Your task to perform on an android device: turn on bluetooth scan Image 0: 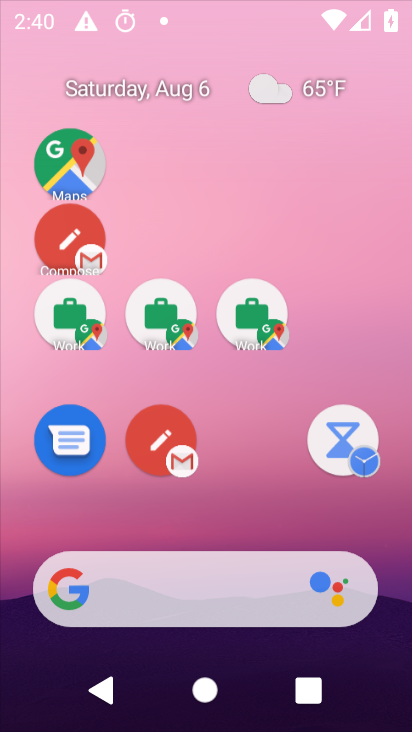
Step 0: click (169, 233)
Your task to perform on an android device: turn on bluetooth scan Image 1: 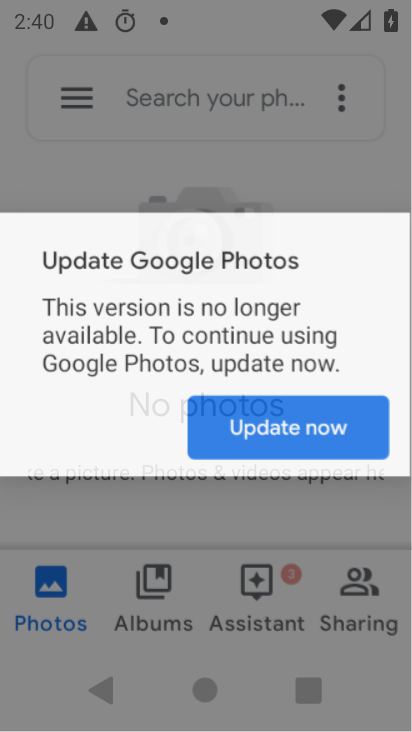
Step 1: click (148, 197)
Your task to perform on an android device: turn on bluetooth scan Image 2: 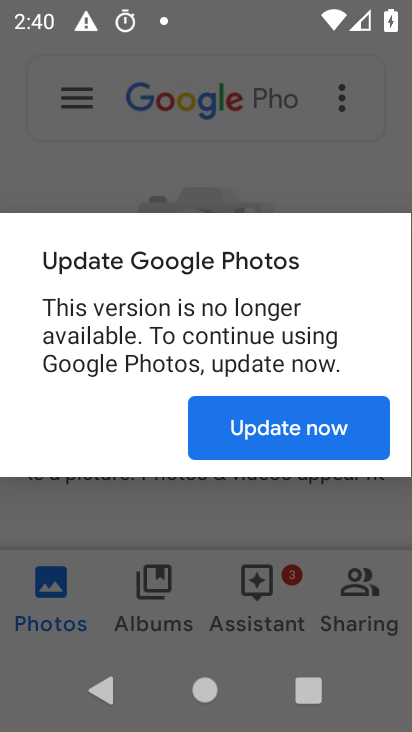
Step 2: drag from (234, 530) to (190, 195)
Your task to perform on an android device: turn on bluetooth scan Image 3: 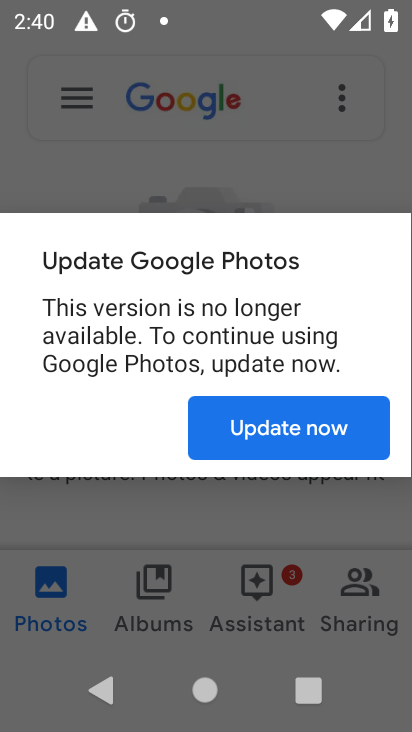
Step 3: press back button
Your task to perform on an android device: turn on bluetooth scan Image 4: 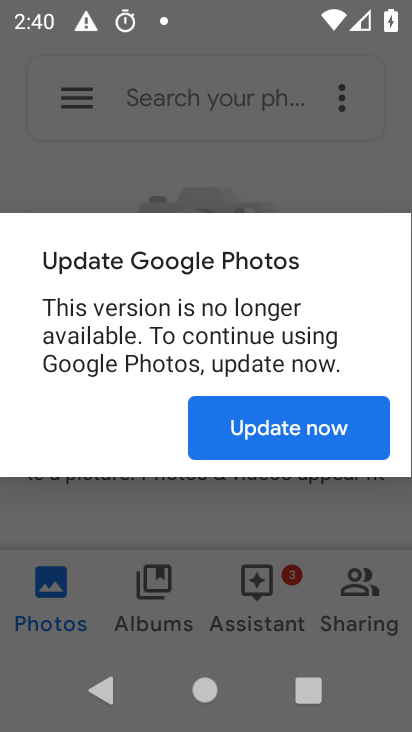
Step 4: click (350, 168)
Your task to perform on an android device: turn on bluetooth scan Image 5: 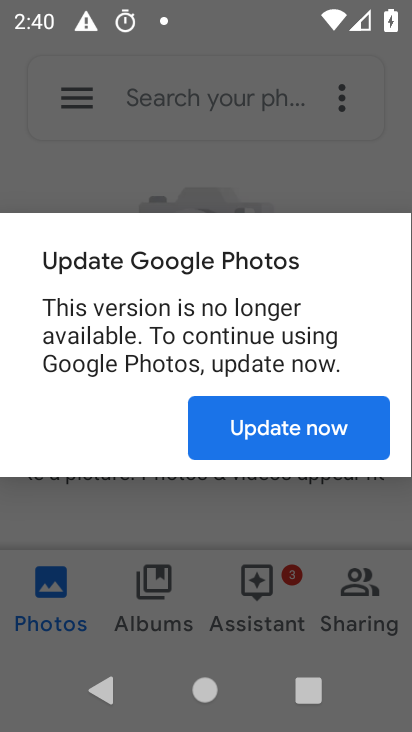
Step 5: press home button
Your task to perform on an android device: turn on bluetooth scan Image 6: 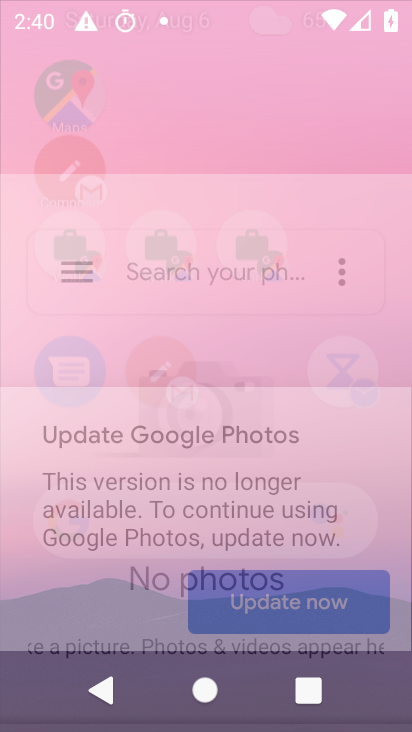
Step 6: press back button
Your task to perform on an android device: turn on bluetooth scan Image 7: 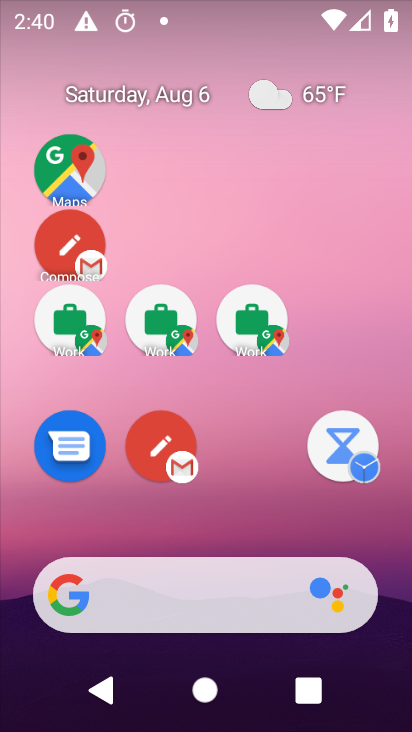
Step 7: drag from (256, 594) to (157, 116)
Your task to perform on an android device: turn on bluetooth scan Image 8: 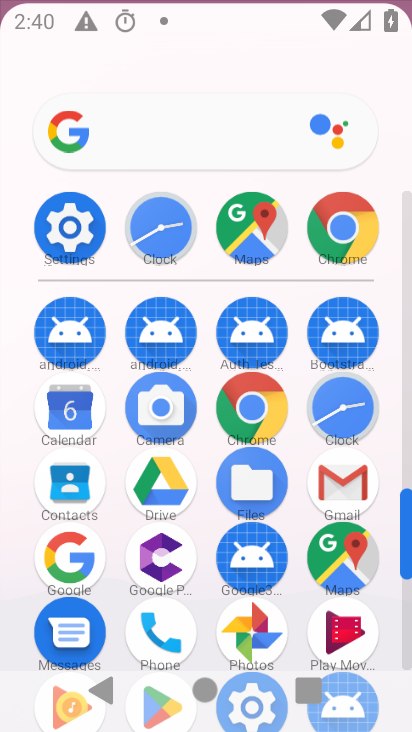
Step 8: drag from (255, 460) to (239, 193)
Your task to perform on an android device: turn on bluetooth scan Image 9: 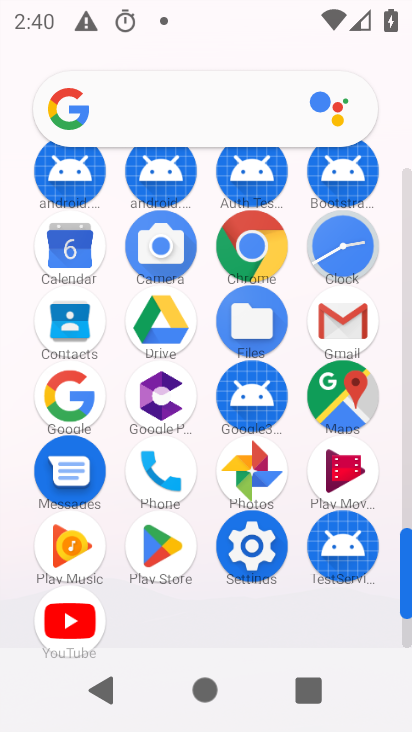
Step 9: click (247, 548)
Your task to perform on an android device: turn on bluetooth scan Image 10: 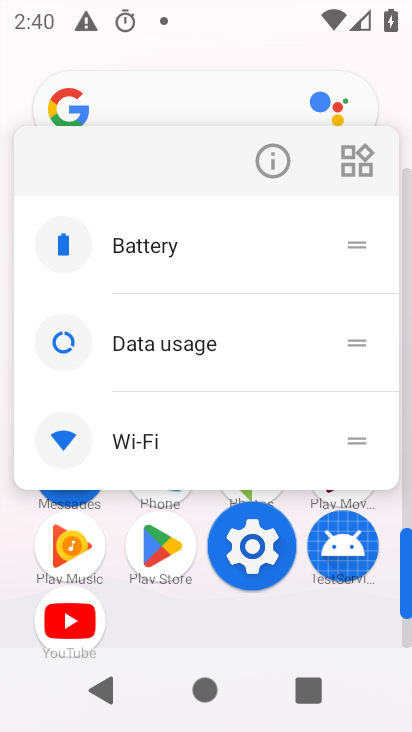
Step 10: click (247, 548)
Your task to perform on an android device: turn on bluetooth scan Image 11: 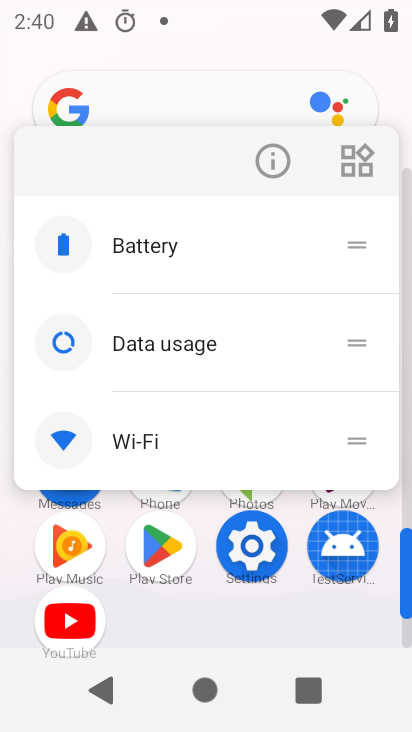
Step 11: click (259, 559)
Your task to perform on an android device: turn on bluetooth scan Image 12: 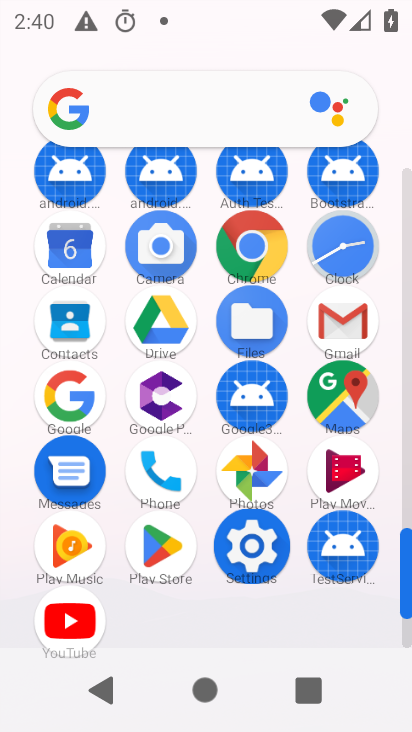
Step 12: click (264, 555)
Your task to perform on an android device: turn on bluetooth scan Image 13: 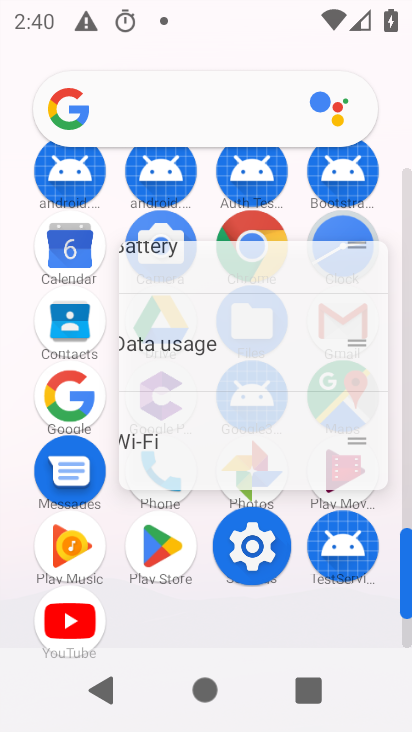
Step 13: click (266, 555)
Your task to perform on an android device: turn on bluetooth scan Image 14: 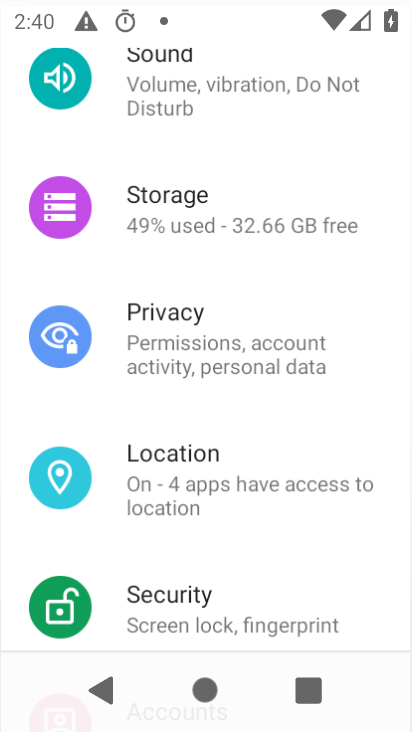
Step 14: click (269, 554)
Your task to perform on an android device: turn on bluetooth scan Image 15: 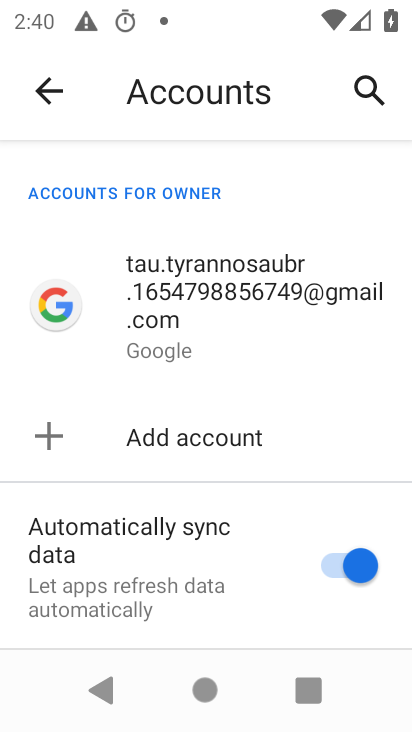
Step 15: click (38, 81)
Your task to perform on an android device: turn on bluetooth scan Image 16: 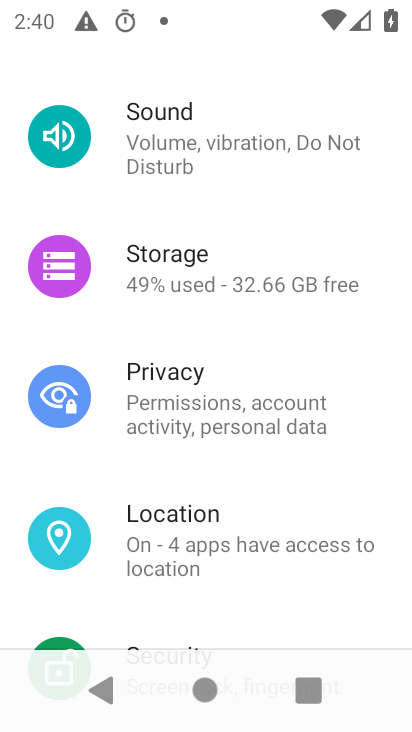
Step 16: drag from (171, 202) to (187, 437)
Your task to perform on an android device: turn on bluetooth scan Image 17: 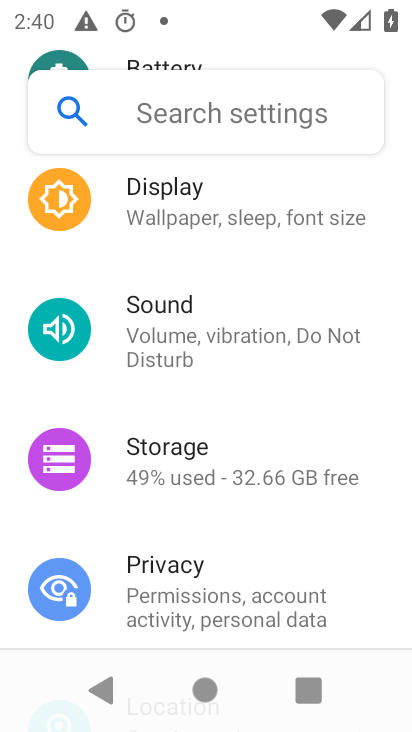
Step 17: drag from (184, 286) to (228, 461)
Your task to perform on an android device: turn on bluetooth scan Image 18: 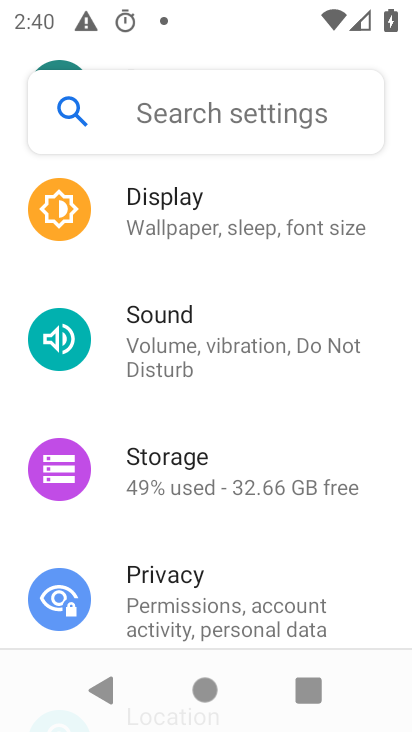
Step 18: drag from (187, 286) to (221, 595)
Your task to perform on an android device: turn on bluetooth scan Image 19: 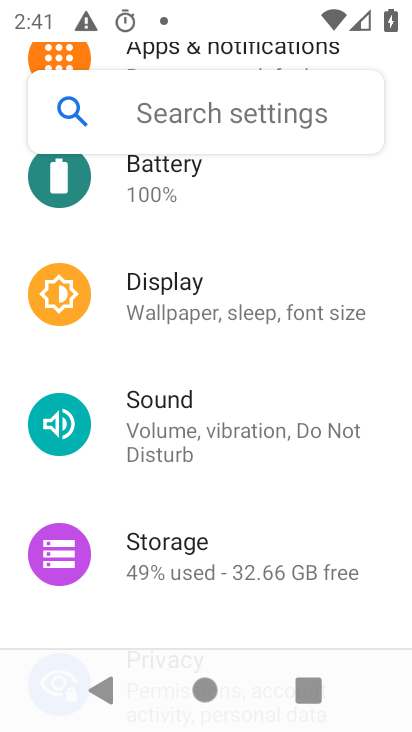
Step 19: drag from (211, 404) to (172, 538)
Your task to perform on an android device: turn on bluetooth scan Image 20: 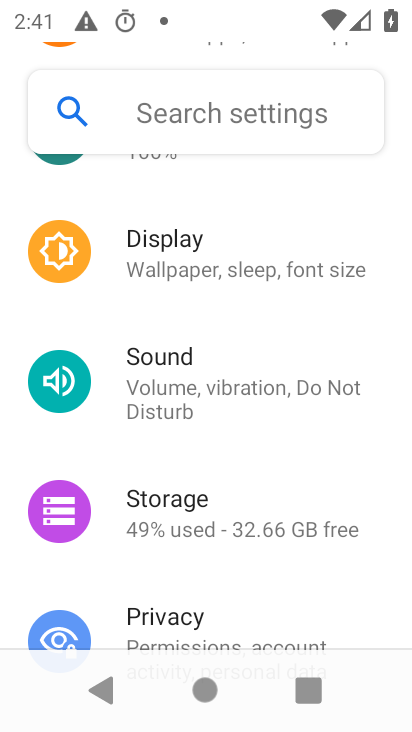
Step 20: drag from (185, 290) to (211, 479)
Your task to perform on an android device: turn on bluetooth scan Image 21: 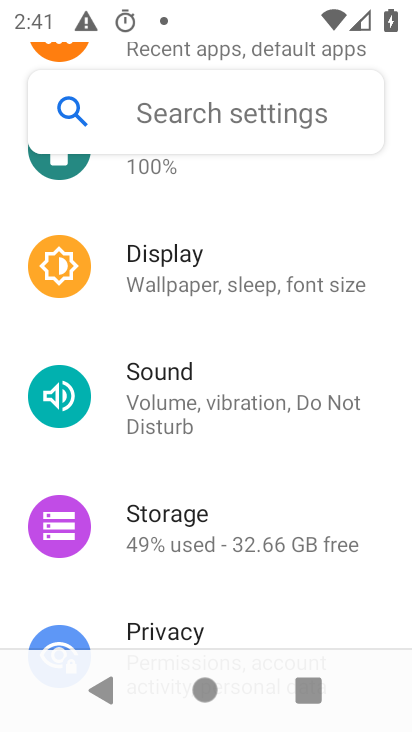
Step 21: drag from (171, 213) to (168, 569)
Your task to perform on an android device: turn on bluetooth scan Image 22: 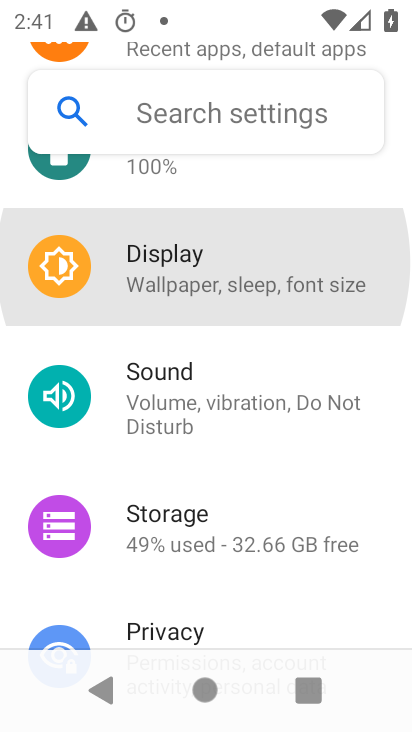
Step 22: drag from (185, 318) to (224, 586)
Your task to perform on an android device: turn on bluetooth scan Image 23: 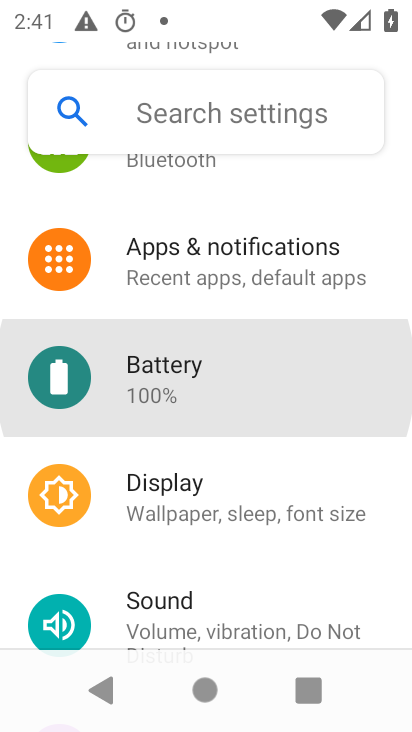
Step 23: drag from (228, 399) to (236, 525)
Your task to perform on an android device: turn on bluetooth scan Image 24: 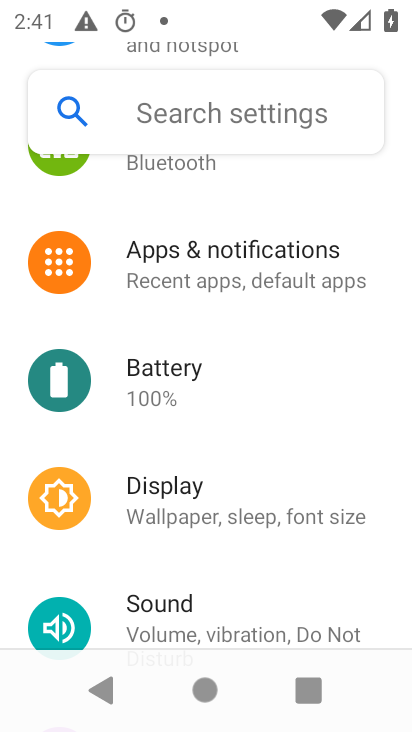
Step 24: drag from (189, 242) to (190, 624)
Your task to perform on an android device: turn on bluetooth scan Image 25: 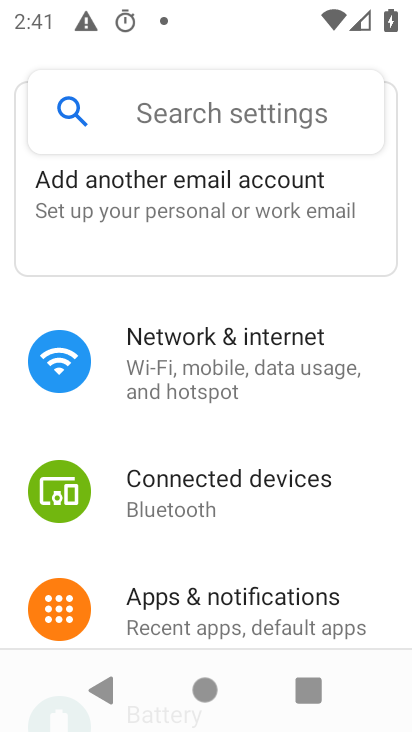
Step 25: click (178, 491)
Your task to perform on an android device: turn on bluetooth scan Image 26: 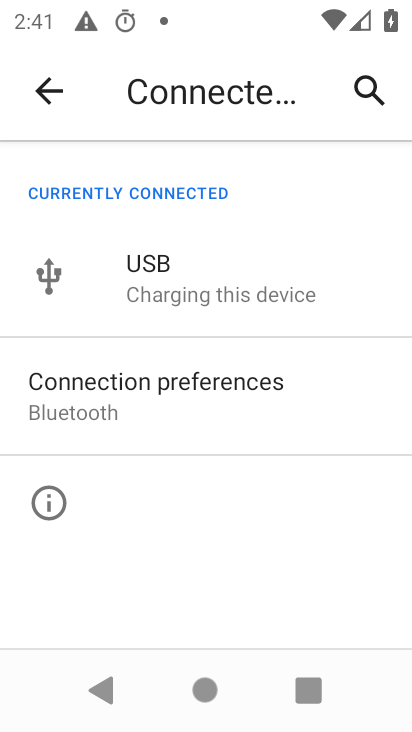
Step 26: click (51, 83)
Your task to perform on an android device: turn on bluetooth scan Image 27: 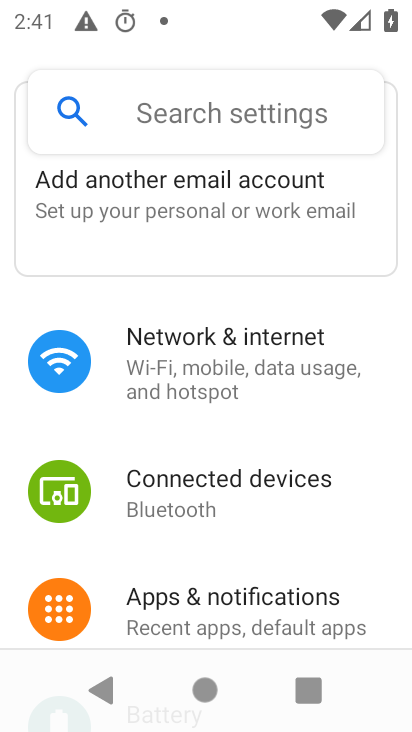
Step 27: drag from (214, 554) to (213, 282)
Your task to perform on an android device: turn on bluetooth scan Image 28: 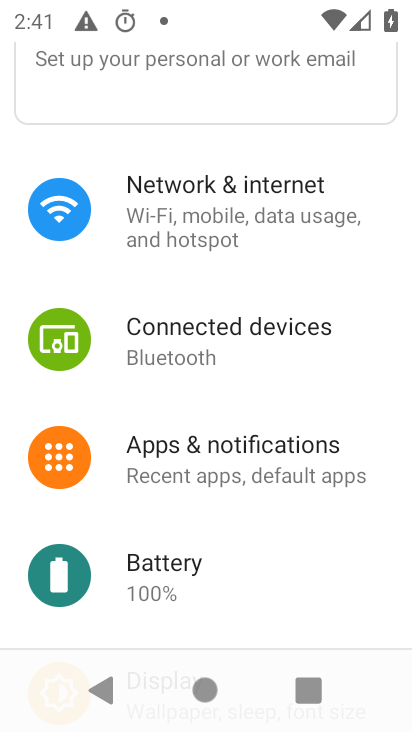
Step 28: drag from (222, 548) to (190, 249)
Your task to perform on an android device: turn on bluetooth scan Image 29: 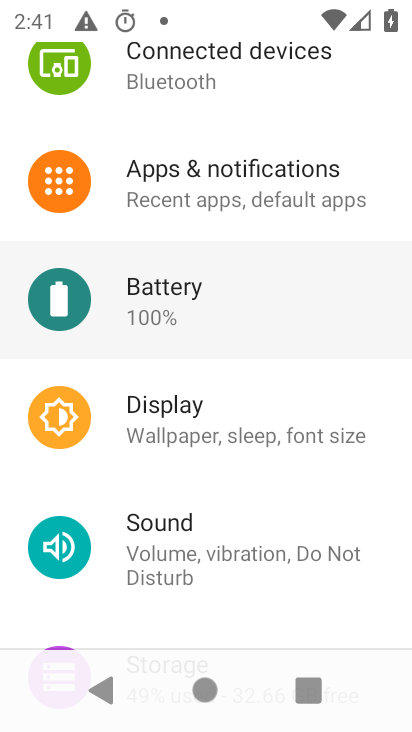
Step 29: drag from (225, 485) to (225, 206)
Your task to perform on an android device: turn on bluetooth scan Image 30: 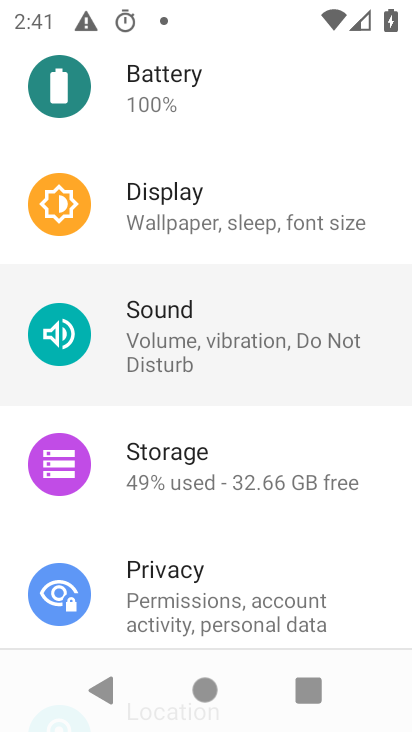
Step 30: drag from (268, 456) to (281, 263)
Your task to perform on an android device: turn on bluetooth scan Image 31: 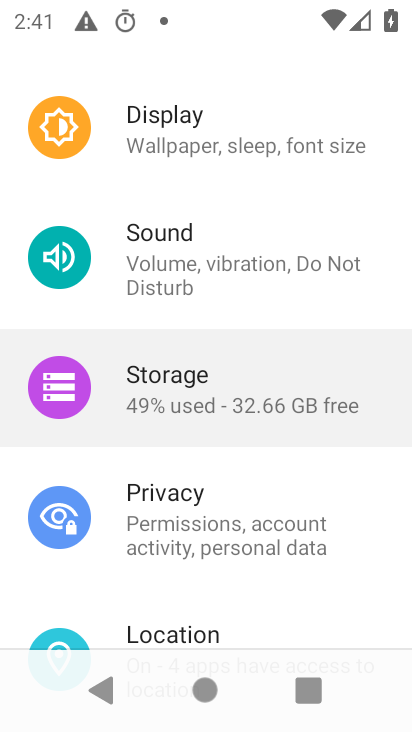
Step 31: drag from (300, 467) to (293, 196)
Your task to perform on an android device: turn on bluetooth scan Image 32: 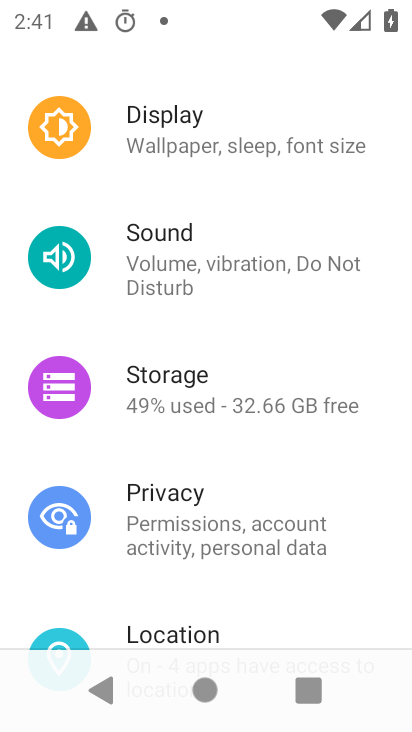
Step 32: click (272, 182)
Your task to perform on an android device: turn on bluetooth scan Image 33: 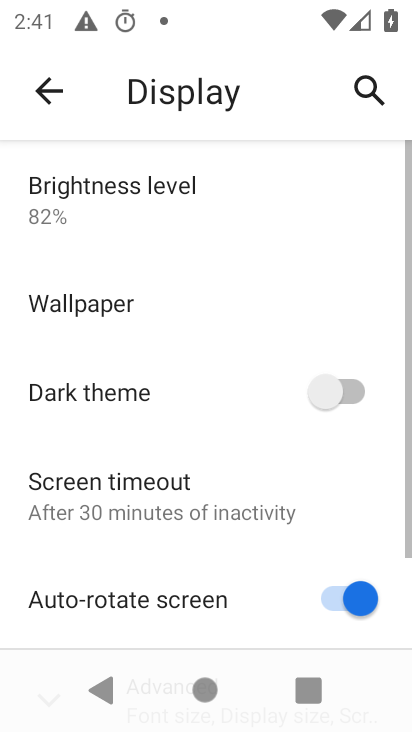
Step 33: click (53, 82)
Your task to perform on an android device: turn on bluetooth scan Image 34: 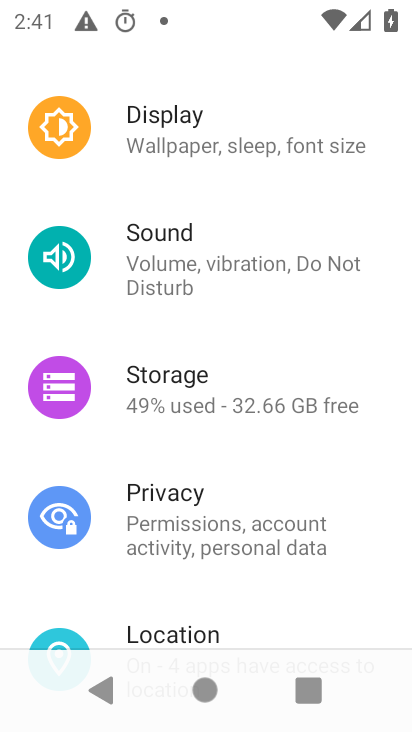
Step 34: click (174, 629)
Your task to perform on an android device: turn on bluetooth scan Image 35: 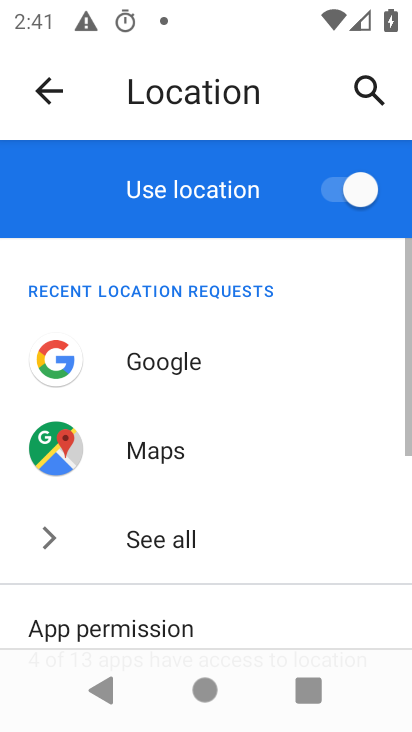
Step 35: drag from (256, 516) to (196, 238)
Your task to perform on an android device: turn on bluetooth scan Image 36: 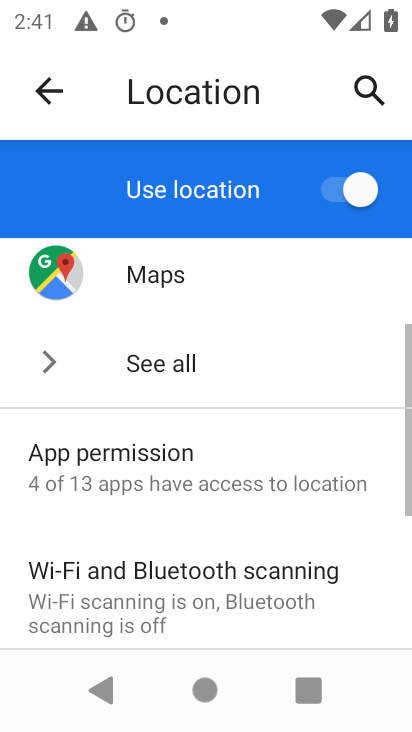
Step 36: drag from (201, 436) to (206, 286)
Your task to perform on an android device: turn on bluetooth scan Image 37: 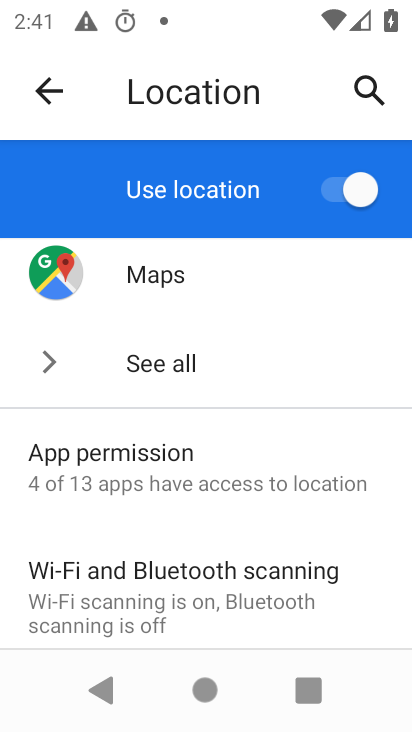
Step 37: click (165, 589)
Your task to perform on an android device: turn on bluetooth scan Image 38: 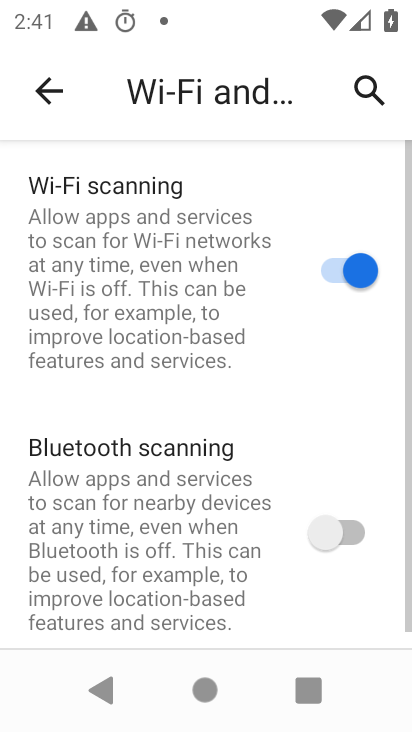
Step 38: click (325, 536)
Your task to perform on an android device: turn on bluetooth scan Image 39: 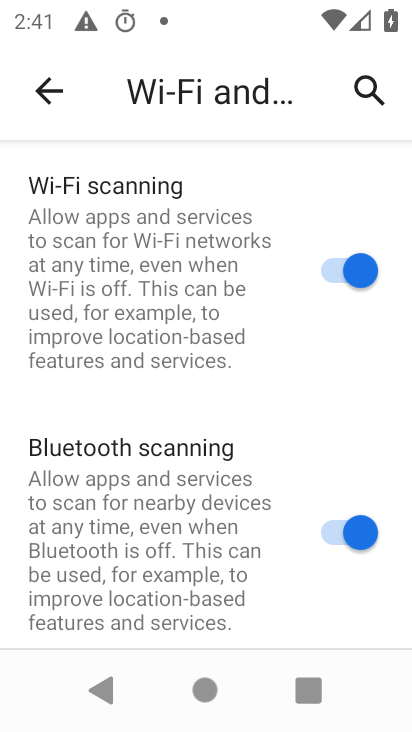
Step 39: task complete